Your task to perform on an android device: Is it going to rain this weekend? Image 0: 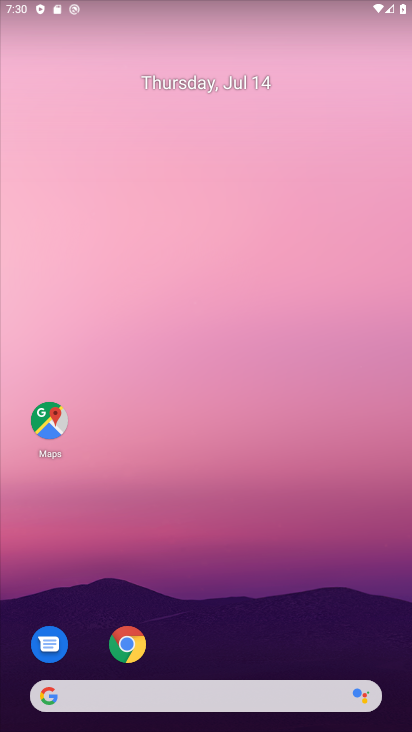
Step 0: click (170, 690)
Your task to perform on an android device: Is it going to rain this weekend? Image 1: 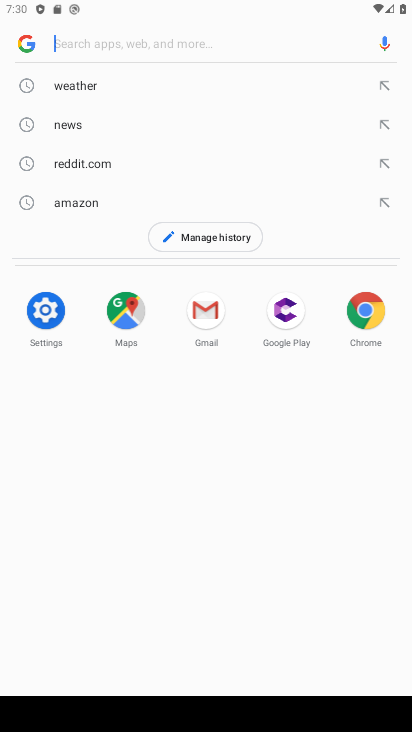
Step 1: click (72, 84)
Your task to perform on an android device: Is it going to rain this weekend? Image 2: 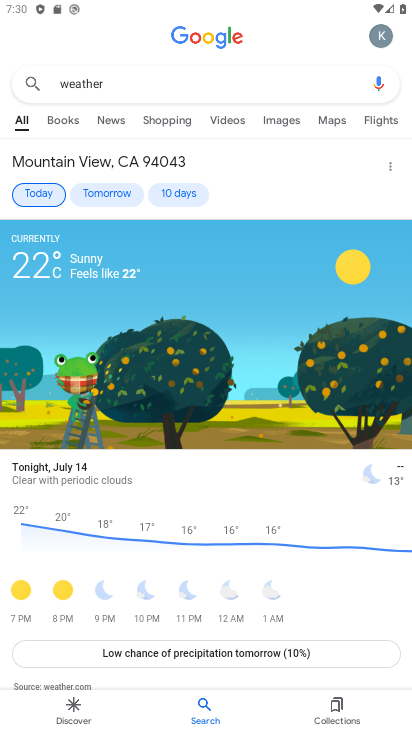
Step 2: click (185, 195)
Your task to perform on an android device: Is it going to rain this weekend? Image 3: 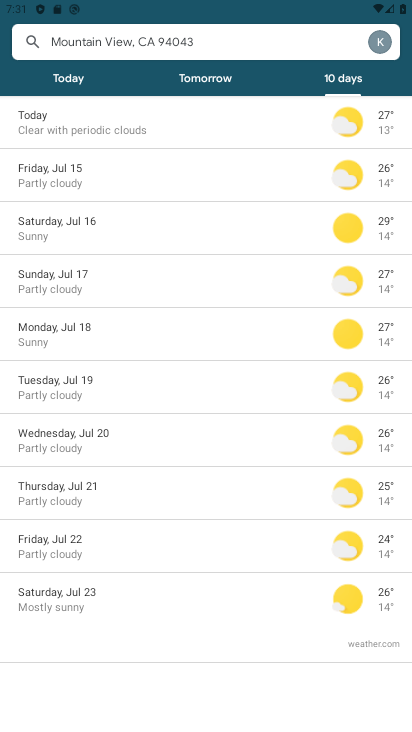
Step 3: click (73, 228)
Your task to perform on an android device: Is it going to rain this weekend? Image 4: 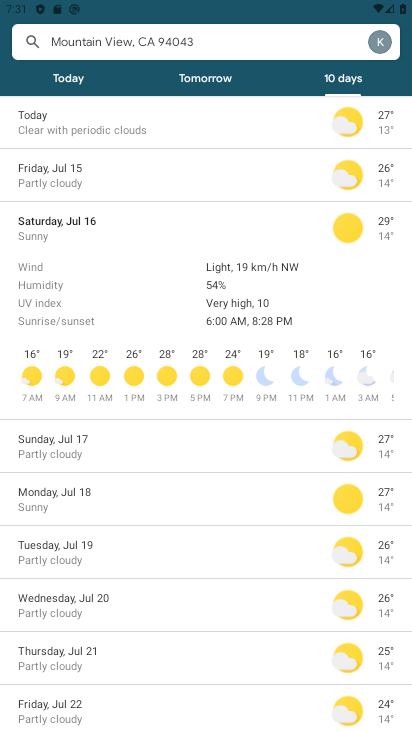
Step 4: task complete